Your task to perform on an android device: Open wifi settings Image 0: 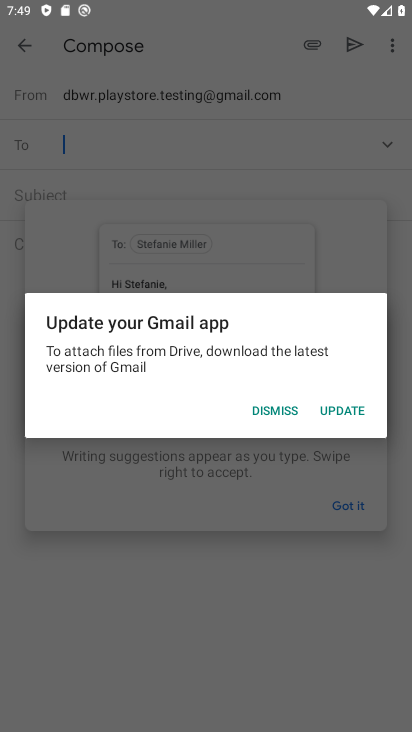
Step 0: press home button
Your task to perform on an android device: Open wifi settings Image 1: 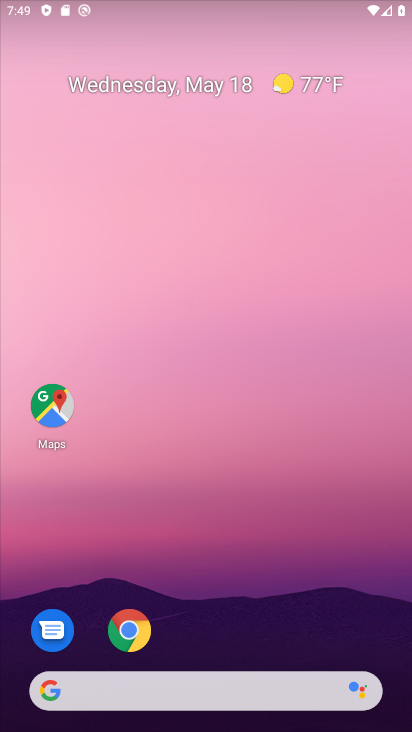
Step 1: drag from (251, 581) to (236, 119)
Your task to perform on an android device: Open wifi settings Image 2: 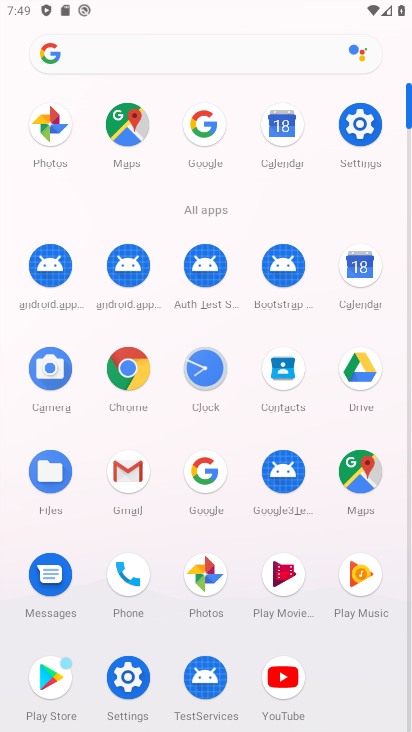
Step 2: click (364, 139)
Your task to perform on an android device: Open wifi settings Image 3: 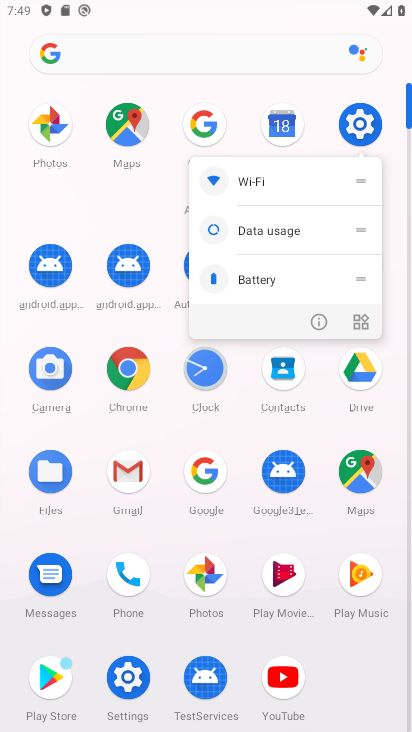
Step 3: click (363, 134)
Your task to perform on an android device: Open wifi settings Image 4: 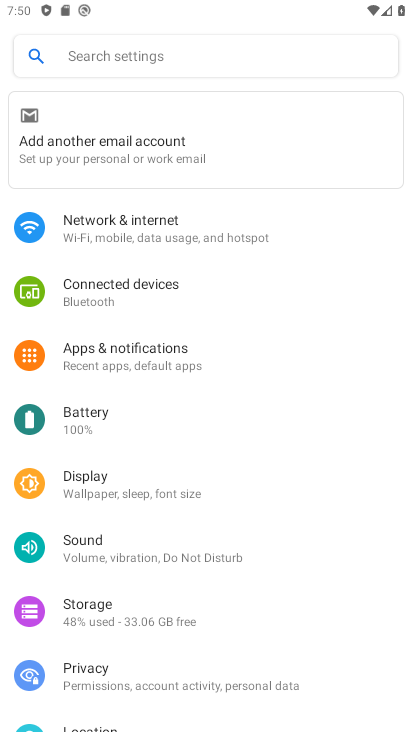
Step 4: click (127, 235)
Your task to perform on an android device: Open wifi settings Image 5: 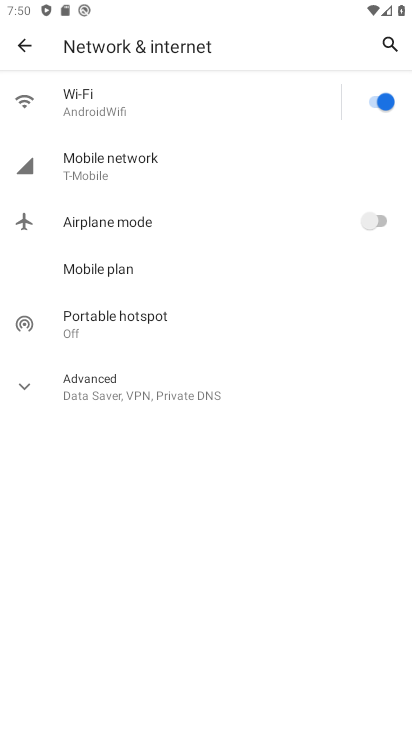
Step 5: click (100, 98)
Your task to perform on an android device: Open wifi settings Image 6: 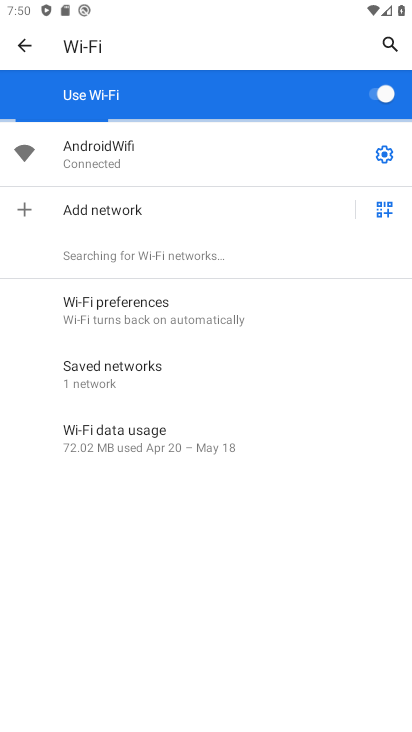
Step 6: task complete